Your task to perform on an android device: Open Wikipedia Image 0: 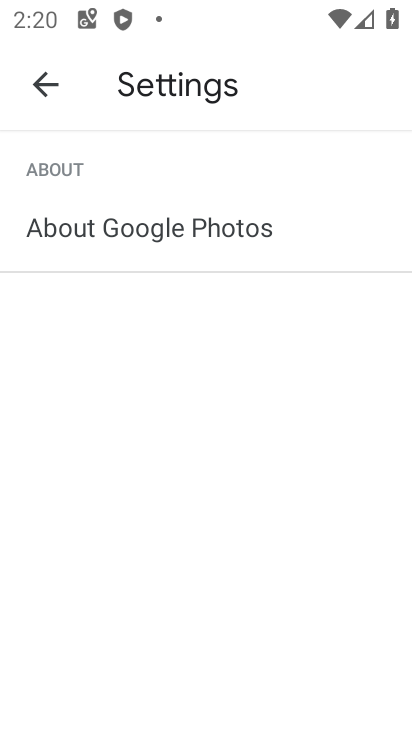
Step 0: press home button
Your task to perform on an android device: Open Wikipedia Image 1: 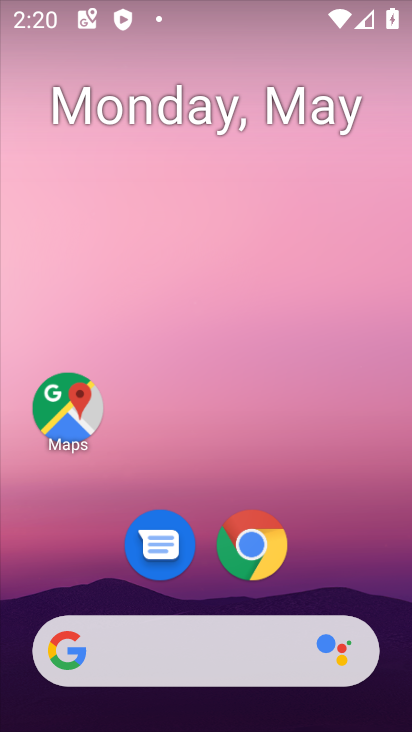
Step 1: click (237, 651)
Your task to perform on an android device: Open Wikipedia Image 2: 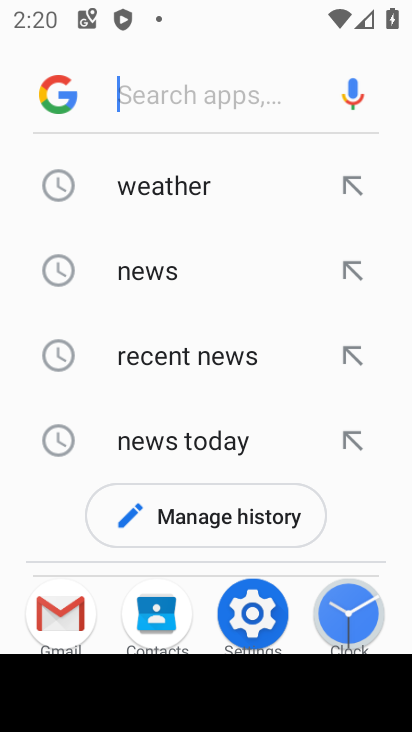
Step 2: type "wikipedia"
Your task to perform on an android device: Open Wikipedia Image 3: 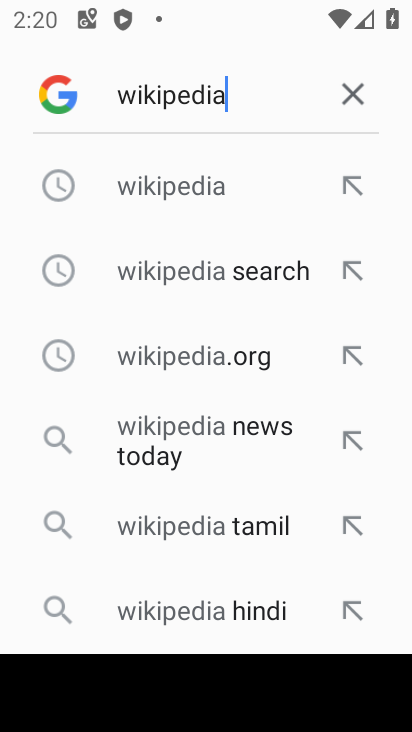
Step 3: click (235, 177)
Your task to perform on an android device: Open Wikipedia Image 4: 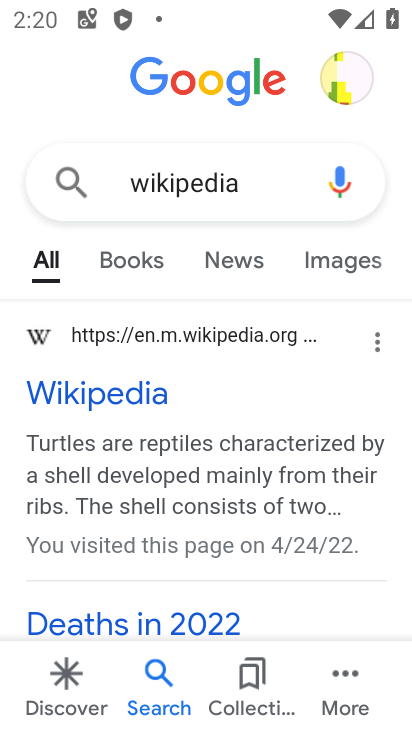
Step 4: click (134, 325)
Your task to perform on an android device: Open Wikipedia Image 5: 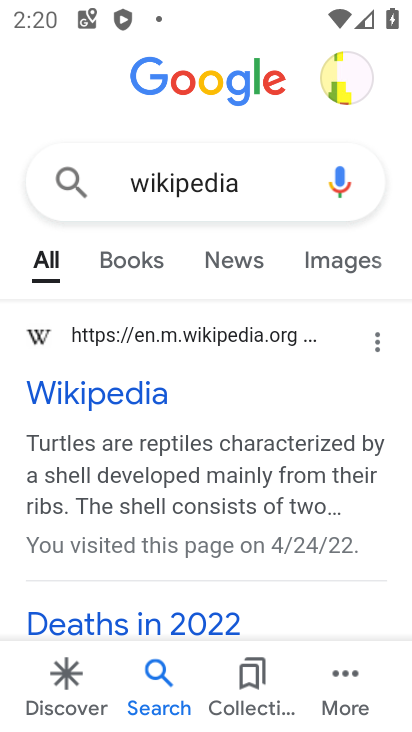
Step 5: click (141, 339)
Your task to perform on an android device: Open Wikipedia Image 6: 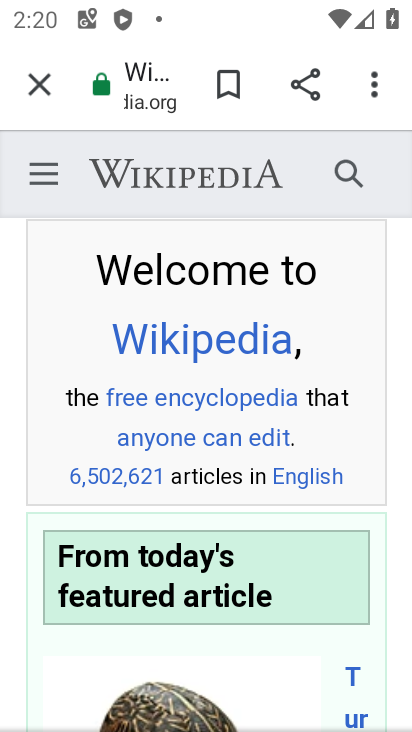
Step 6: task complete